Your task to perform on an android device: change notification settings in the gmail app Image 0: 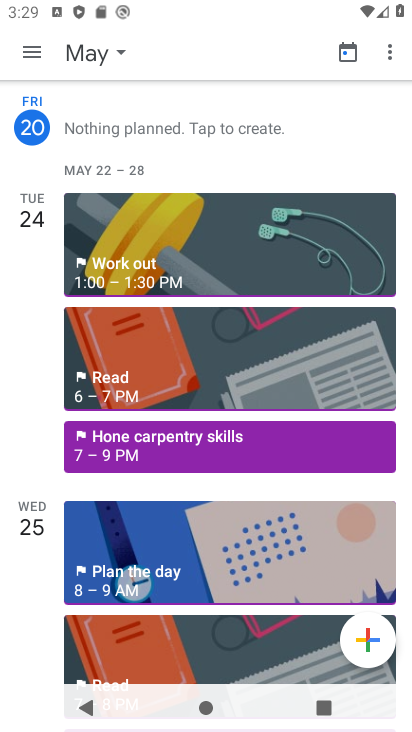
Step 0: press home button
Your task to perform on an android device: change notification settings in the gmail app Image 1: 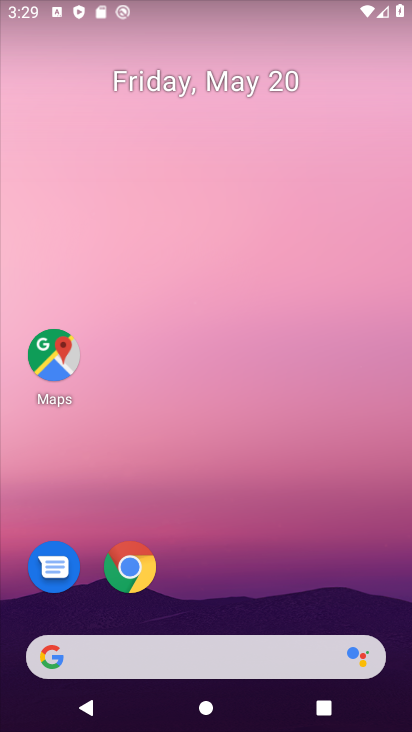
Step 1: drag from (315, 574) to (391, 9)
Your task to perform on an android device: change notification settings in the gmail app Image 2: 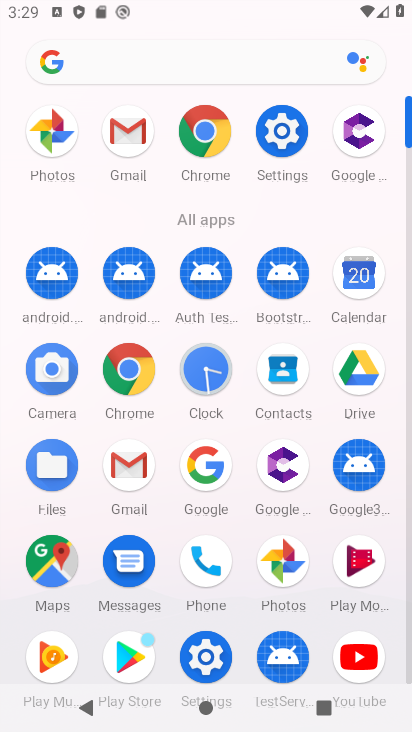
Step 2: click (123, 125)
Your task to perform on an android device: change notification settings in the gmail app Image 3: 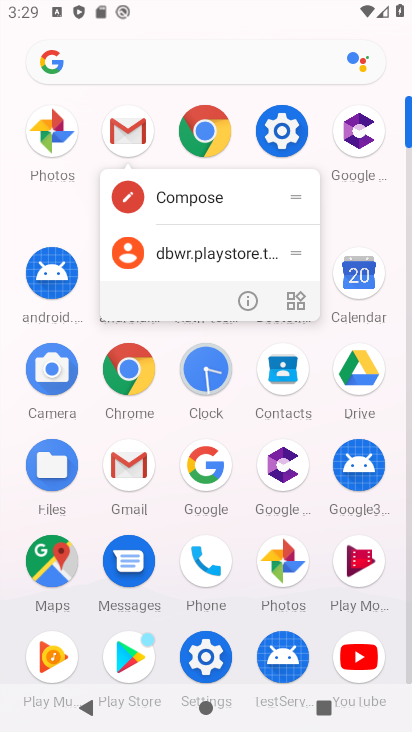
Step 3: click (126, 132)
Your task to perform on an android device: change notification settings in the gmail app Image 4: 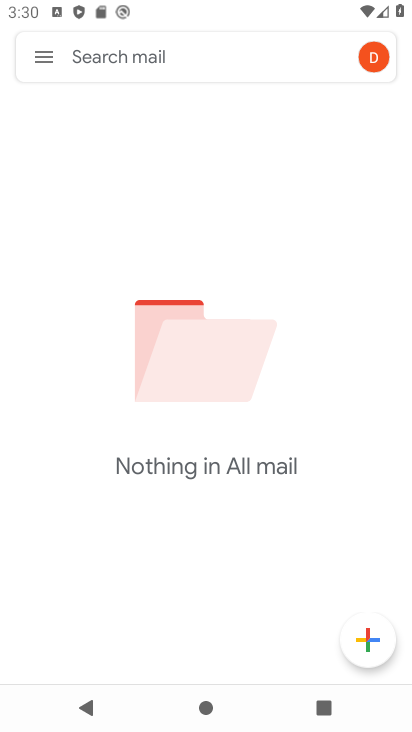
Step 4: click (37, 59)
Your task to perform on an android device: change notification settings in the gmail app Image 5: 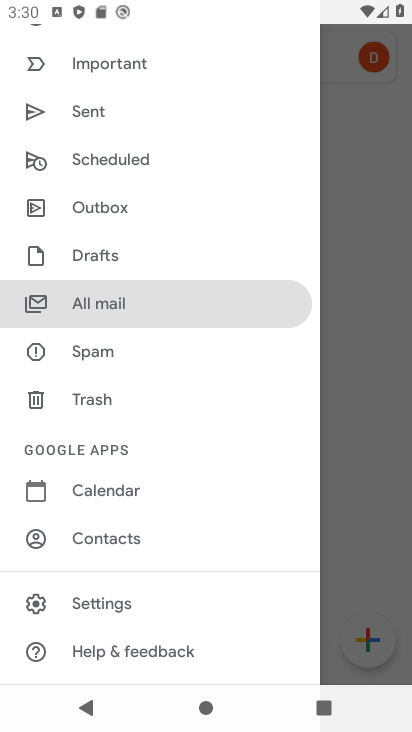
Step 5: click (73, 606)
Your task to perform on an android device: change notification settings in the gmail app Image 6: 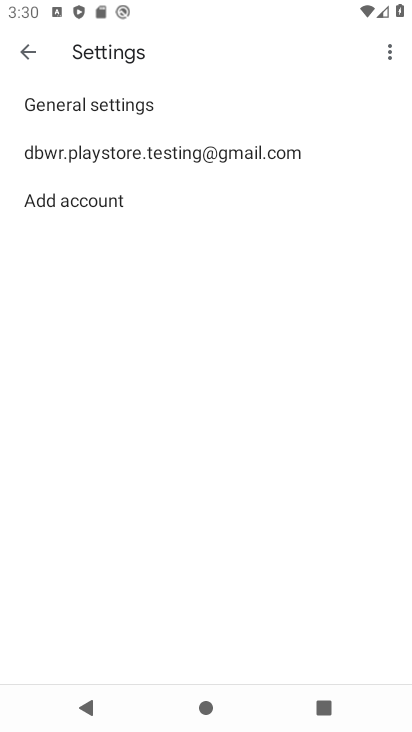
Step 6: click (48, 162)
Your task to perform on an android device: change notification settings in the gmail app Image 7: 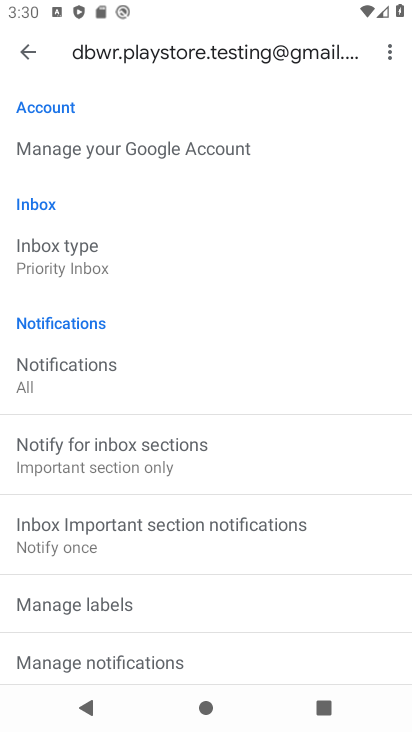
Step 7: click (72, 359)
Your task to perform on an android device: change notification settings in the gmail app Image 8: 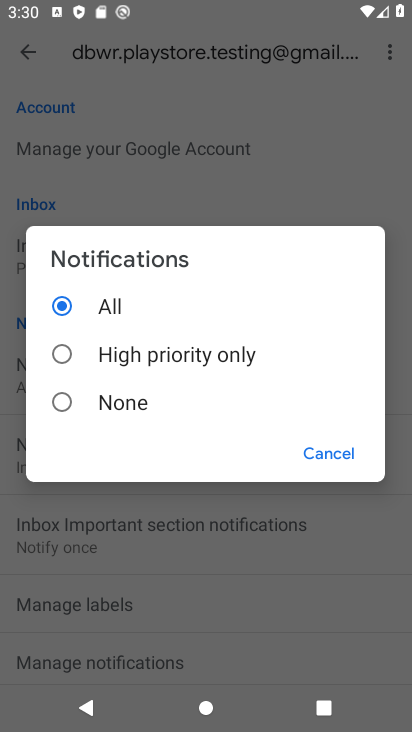
Step 8: click (66, 353)
Your task to perform on an android device: change notification settings in the gmail app Image 9: 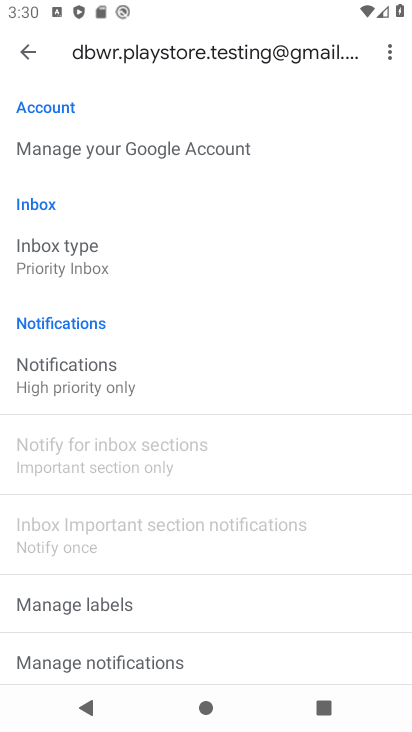
Step 9: task complete